Your task to perform on an android device: check google app version Image 0: 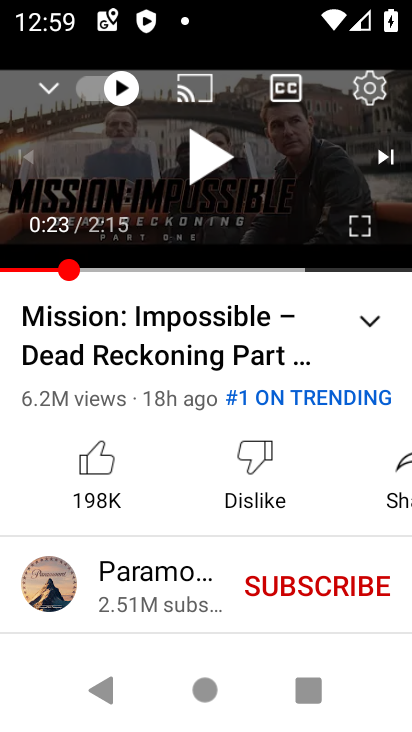
Step 0: press home button
Your task to perform on an android device: check google app version Image 1: 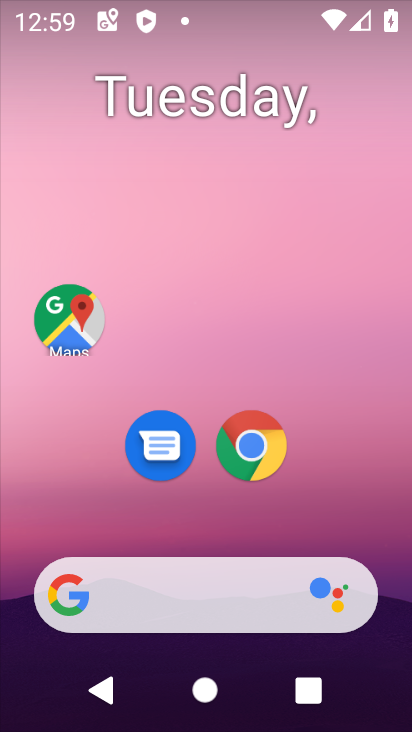
Step 1: drag from (337, 419) to (320, 71)
Your task to perform on an android device: check google app version Image 2: 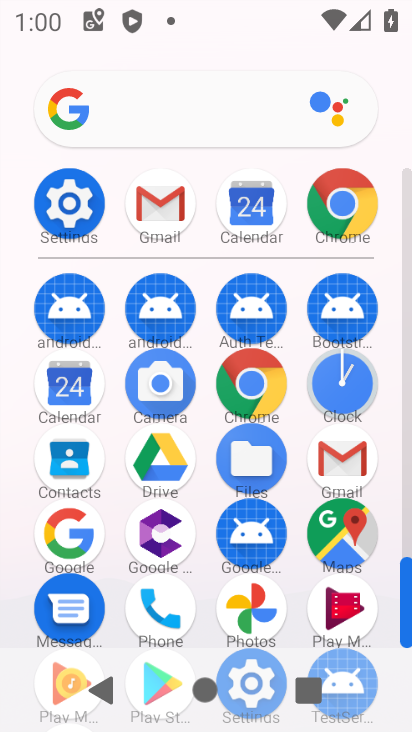
Step 2: drag from (389, 464) to (406, 80)
Your task to perform on an android device: check google app version Image 3: 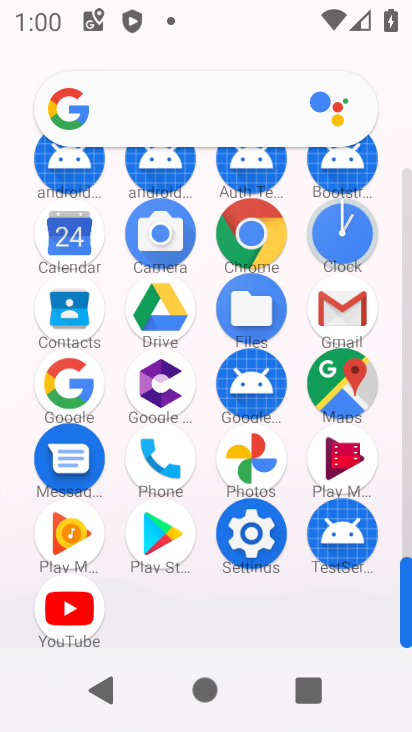
Step 3: click (83, 388)
Your task to perform on an android device: check google app version Image 4: 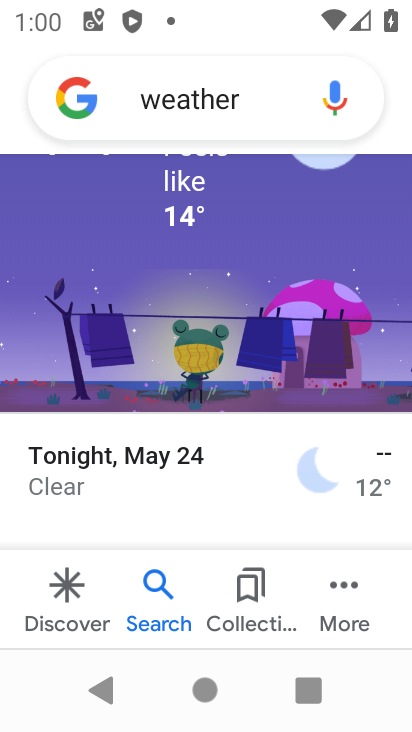
Step 4: click (310, 616)
Your task to perform on an android device: check google app version Image 5: 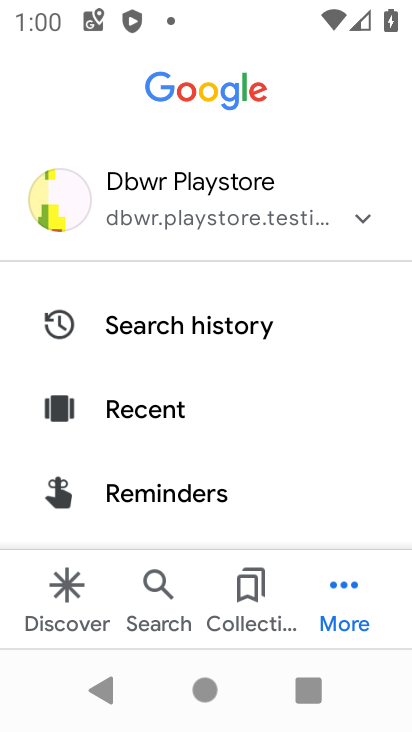
Step 5: drag from (286, 538) to (282, 35)
Your task to perform on an android device: check google app version Image 6: 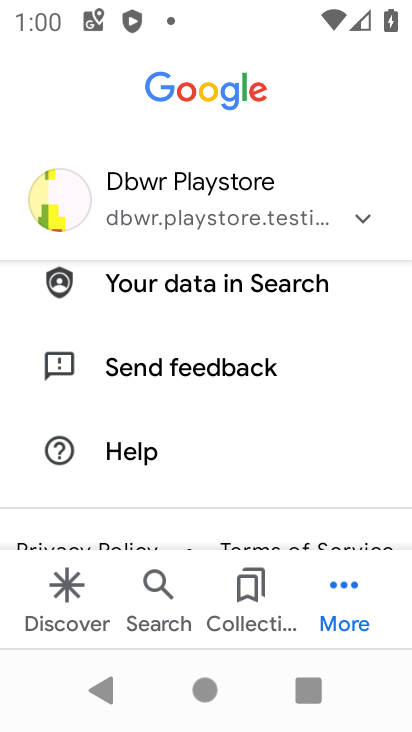
Step 6: drag from (173, 342) to (181, 525)
Your task to perform on an android device: check google app version Image 7: 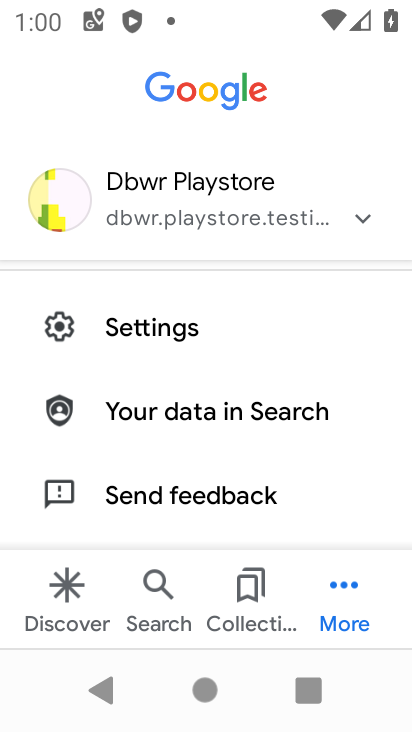
Step 7: click (124, 322)
Your task to perform on an android device: check google app version Image 8: 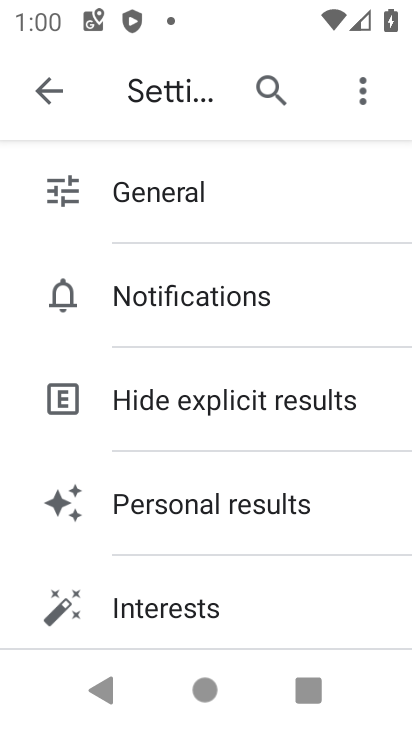
Step 8: drag from (289, 319) to (244, 713)
Your task to perform on an android device: check google app version Image 9: 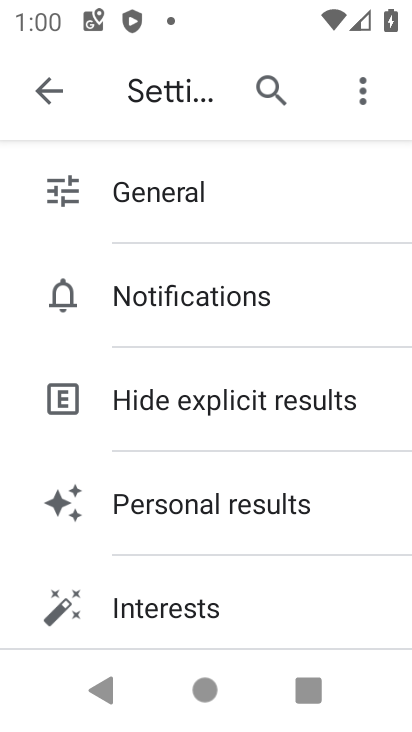
Step 9: drag from (281, 311) to (283, 649)
Your task to perform on an android device: check google app version Image 10: 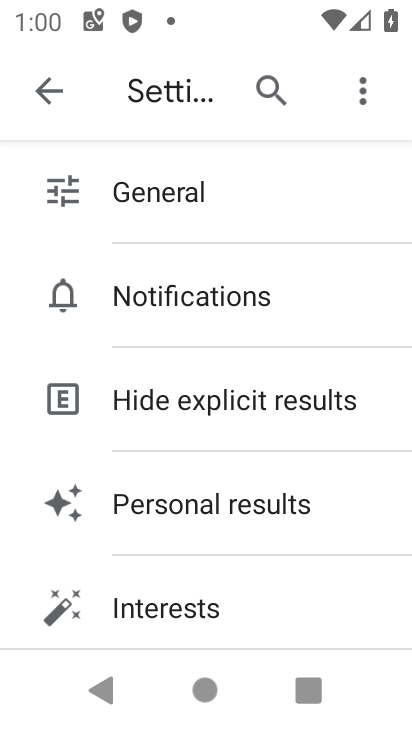
Step 10: drag from (274, 638) to (259, 294)
Your task to perform on an android device: check google app version Image 11: 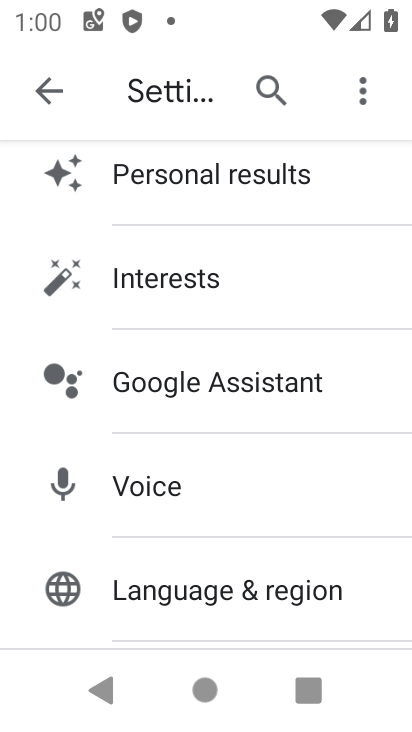
Step 11: drag from (219, 560) to (275, 133)
Your task to perform on an android device: check google app version Image 12: 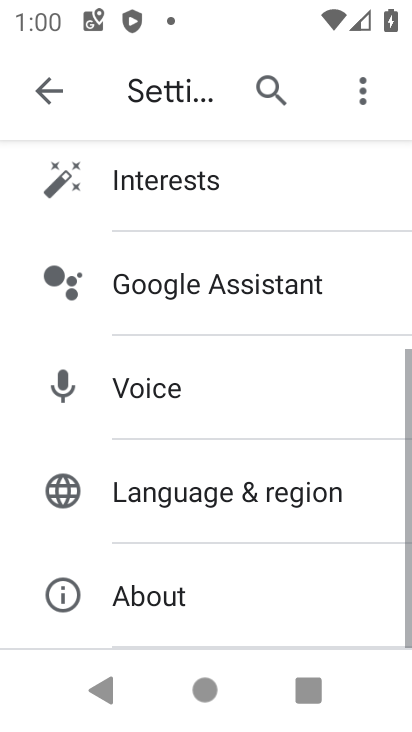
Step 12: drag from (225, 598) to (266, 196)
Your task to perform on an android device: check google app version Image 13: 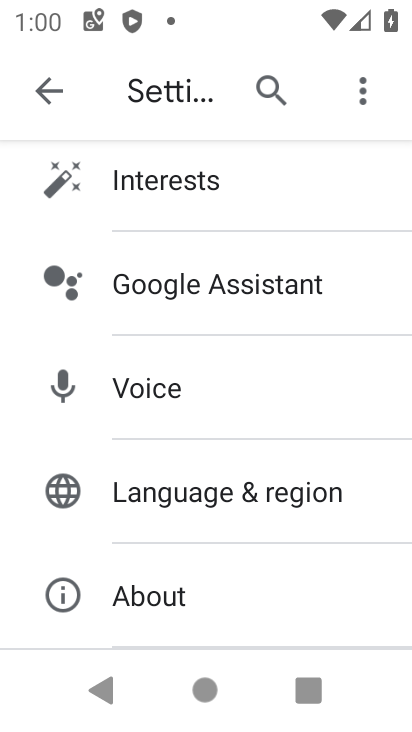
Step 13: click (160, 596)
Your task to perform on an android device: check google app version Image 14: 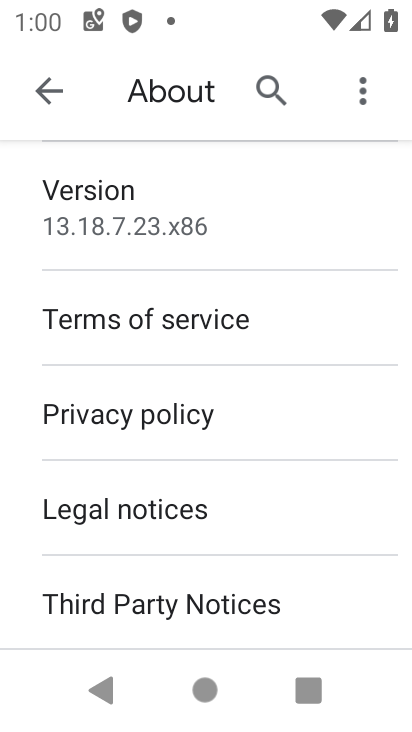
Step 14: click (196, 217)
Your task to perform on an android device: check google app version Image 15: 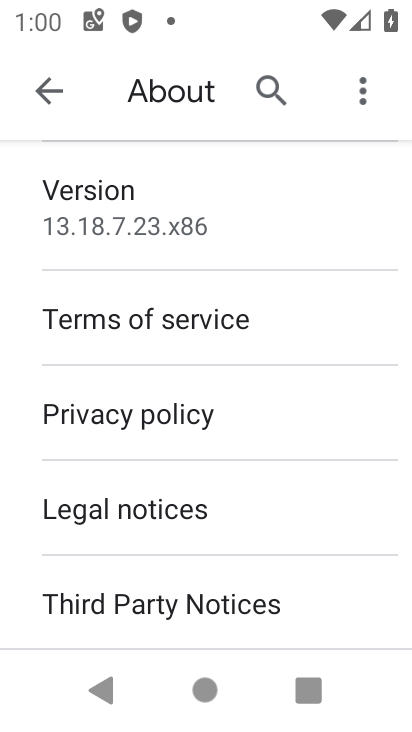
Step 15: task complete